Your task to perform on an android device: Search for seafood restaurants on Google Maps Image 0: 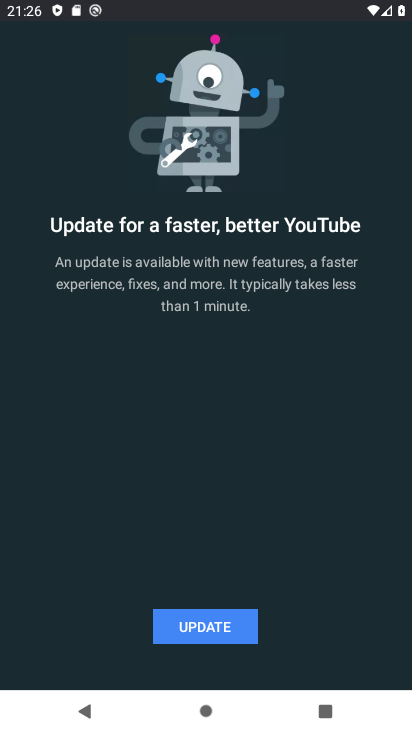
Step 0: press home button
Your task to perform on an android device: Search for seafood restaurants on Google Maps Image 1: 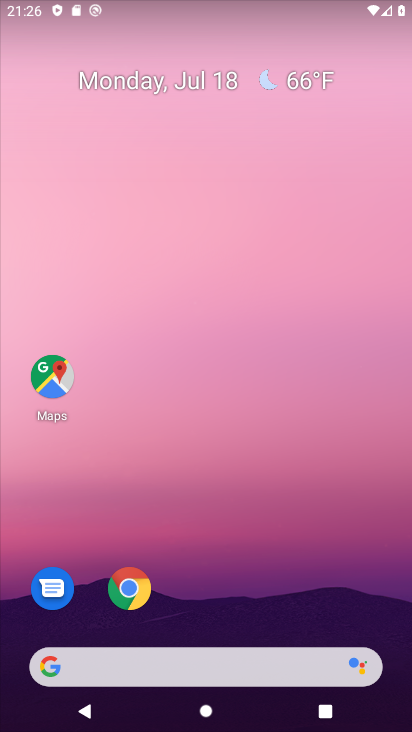
Step 1: click (58, 383)
Your task to perform on an android device: Search for seafood restaurants on Google Maps Image 2: 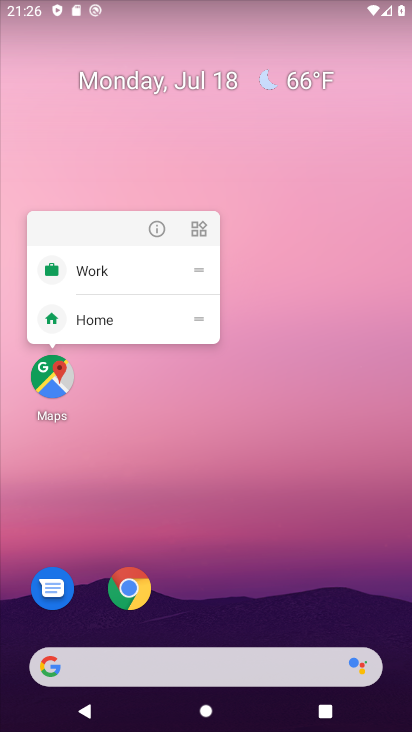
Step 2: click (58, 383)
Your task to perform on an android device: Search for seafood restaurants on Google Maps Image 3: 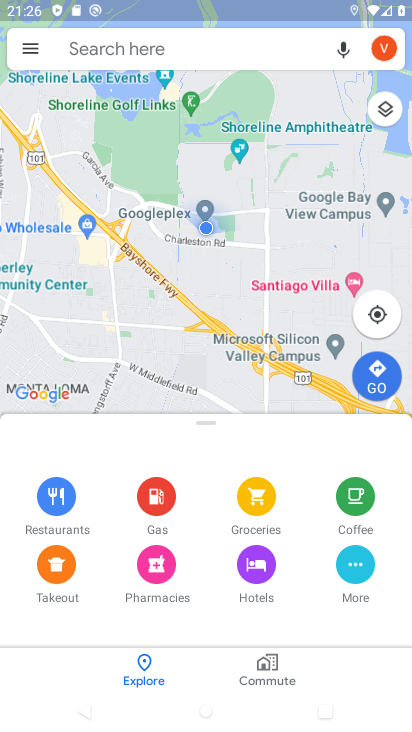
Step 3: click (204, 47)
Your task to perform on an android device: Search for seafood restaurants on Google Maps Image 4: 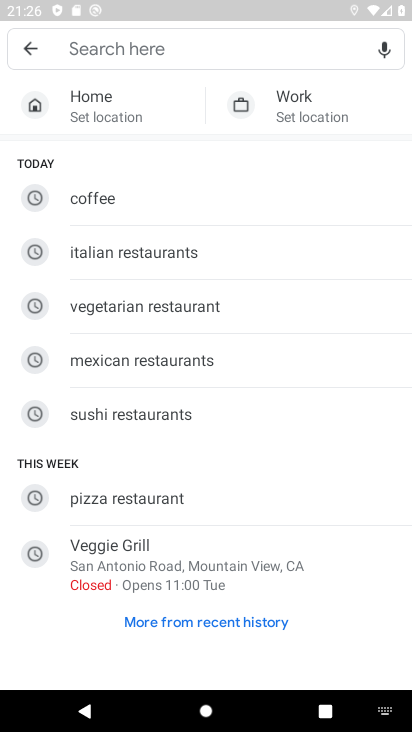
Step 4: type "seafood restaurants"
Your task to perform on an android device: Search for seafood restaurants on Google Maps Image 5: 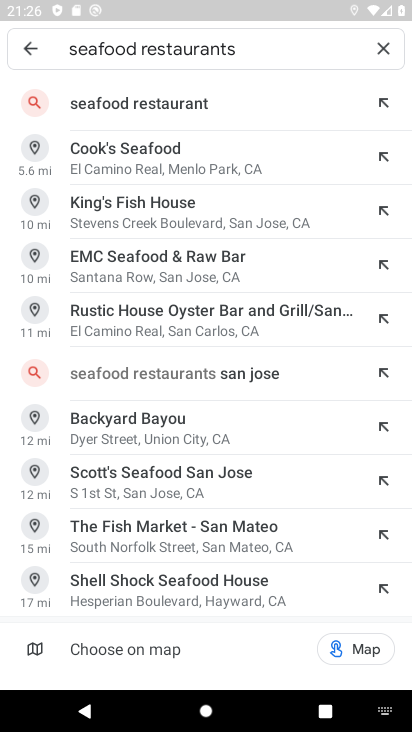
Step 5: click (159, 109)
Your task to perform on an android device: Search for seafood restaurants on Google Maps Image 6: 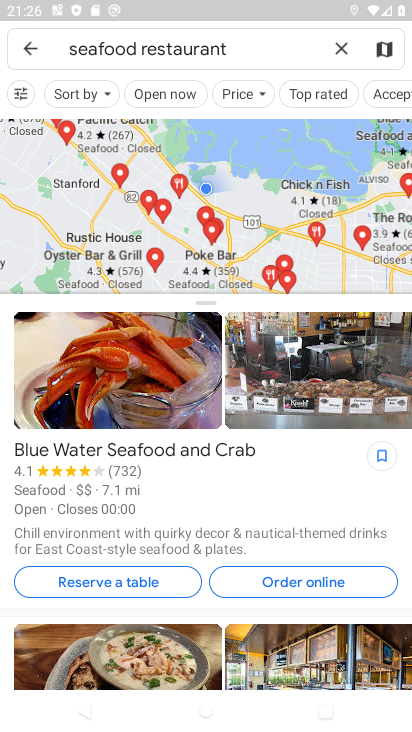
Step 6: task complete